Your task to perform on an android device: open the mobile data screen to see how much data has been used Image 0: 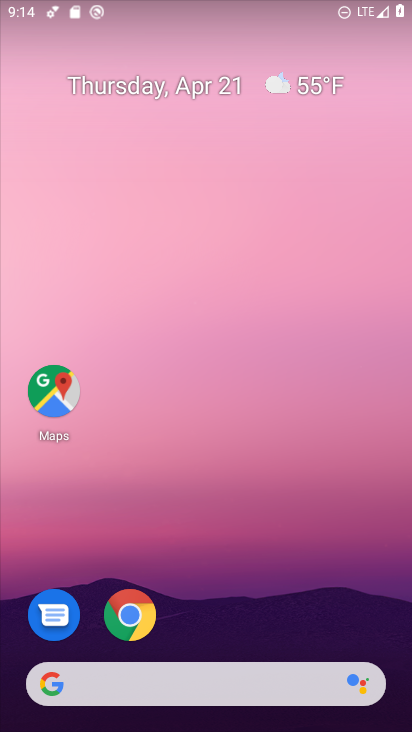
Step 0: drag from (274, 515) to (288, 108)
Your task to perform on an android device: open the mobile data screen to see how much data has been used Image 1: 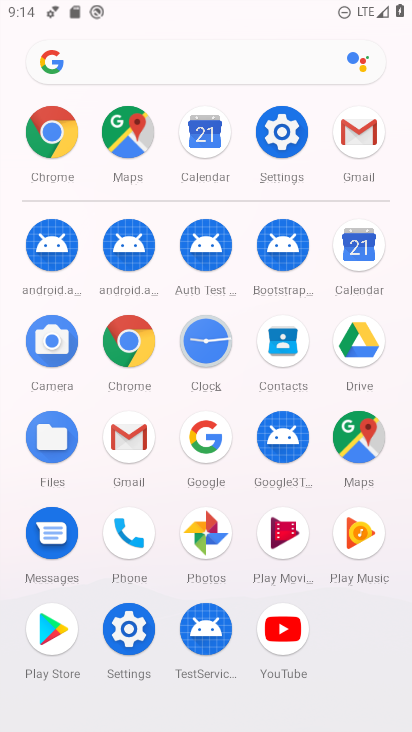
Step 1: click (293, 118)
Your task to perform on an android device: open the mobile data screen to see how much data has been used Image 2: 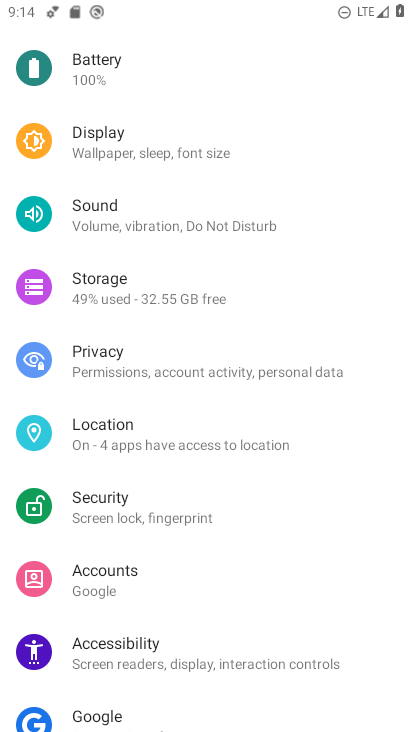
Step 2: drag from (224, 308) to (183, 562)
Your task to perform on an android device: open the mobile data screen to see how much data has been used Image 3: 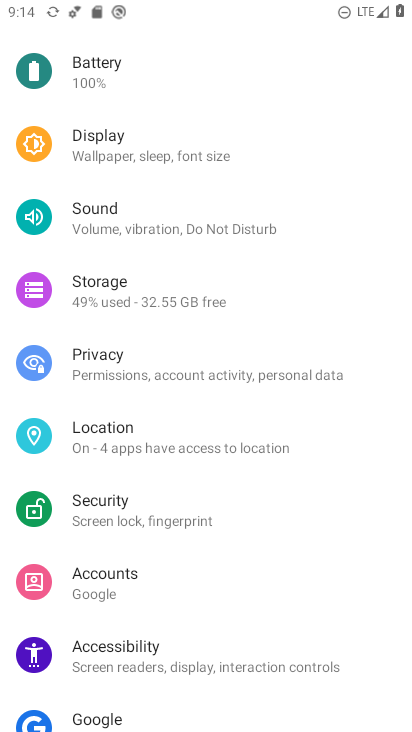
Step 3: drag from (161, 154) to (121, 607)
Your task to perform on an android device: open the mobile data screen to see how much data has been used Image 4: 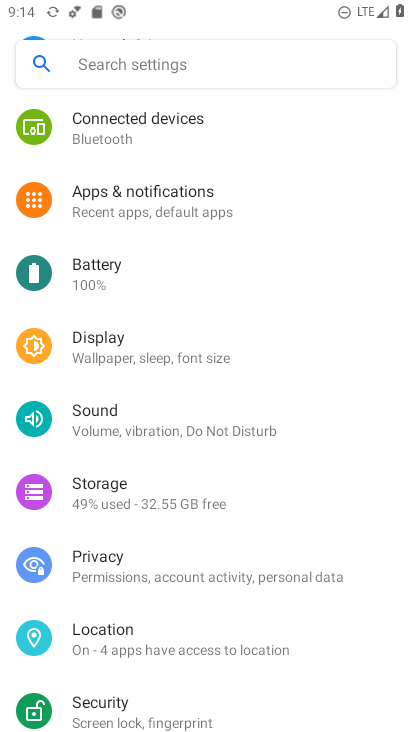
Step 4: drag from (224, 306) to (256, 616)
Your task to perform on an android device: open the mobile data screen to see how much data has been used Image 5: 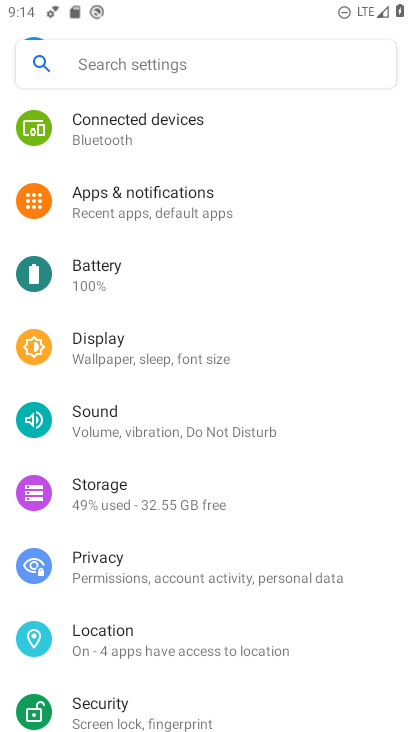
Step 5: drag from (230, 222) to (272, 589)
Your task to perform on an android device: open the mobile data screen to see how much data has been used Image 6: 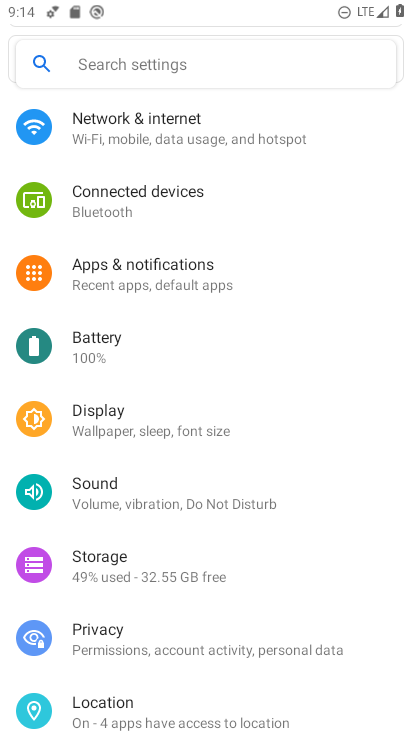
Step 6: drag from (245, 384) to (247, 671)
Your task to perform on an android device: open the mobile data screen to see how much data has been used Image 7: 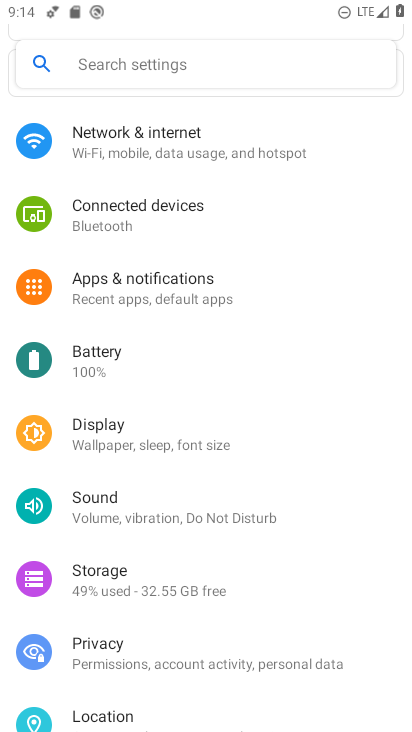
Step 7: drag from (267, 403) to (284, 584)
Your task to perform on an android device: open the mobile data screen to see how much data has been used Image 8: 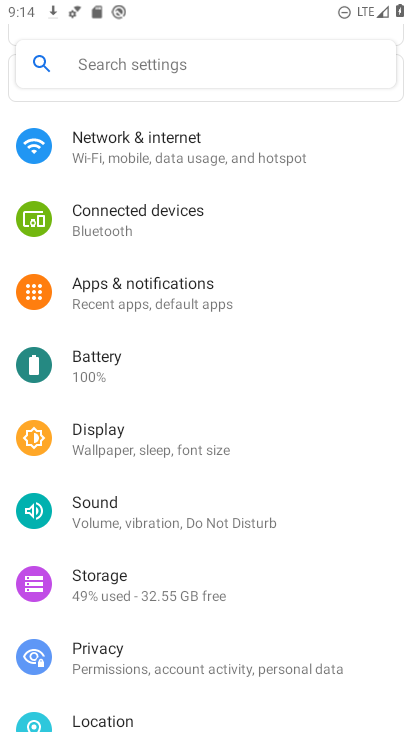
Step 8: click (128, 159)
Your task to perform on an android device: open the mobile data screen to see how much data has been used Image 9: 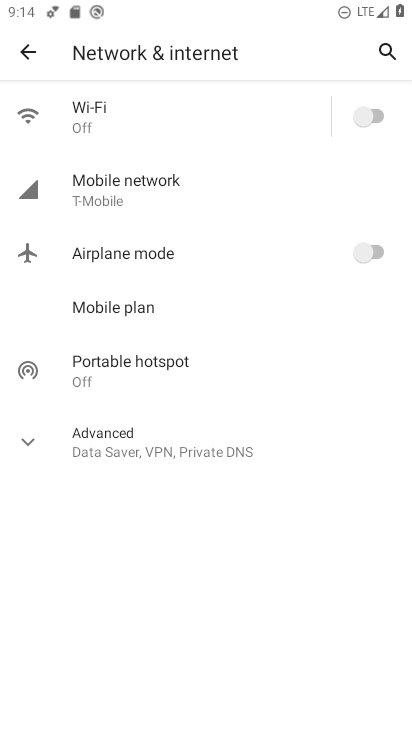
Step 9: click (123, 180)
Your task to perform on an android device: open the mobile data screen to see how much data has been used Image 10: 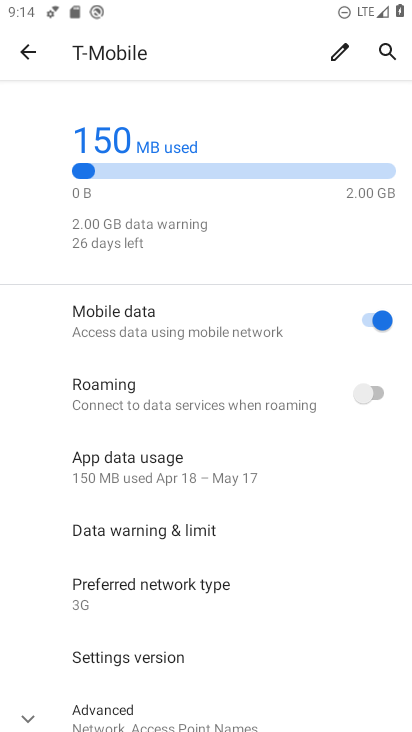
Step 10: task complete